Your task to perform on an android device: Add jbl charge 4 to the cart on costco.com, then select checkout. Image 0: 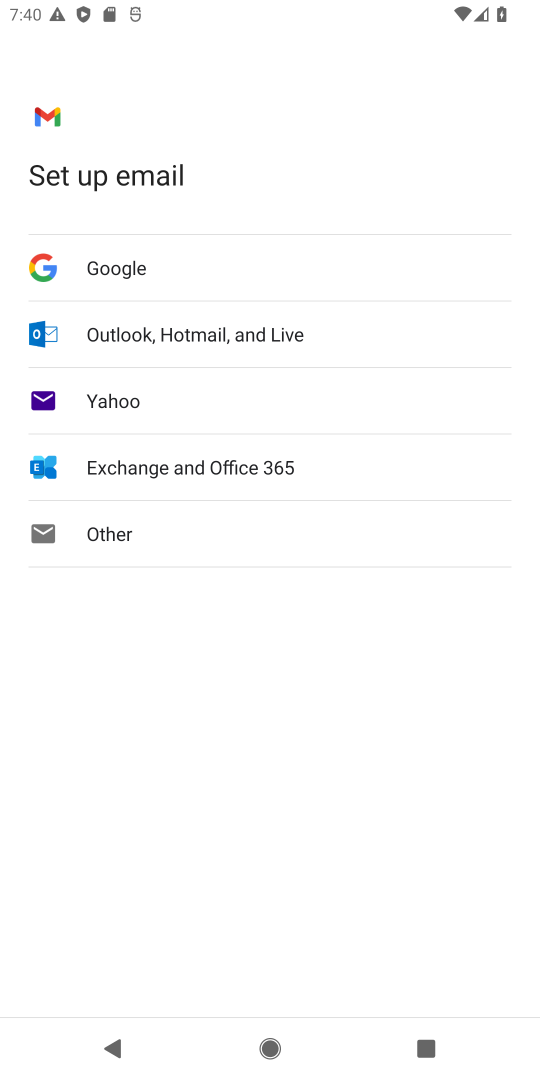
Step 0: press home button
Your task to perform on an android device: Add jbl charge 4 to the cart on costco.com, then select checkout. Image 1: 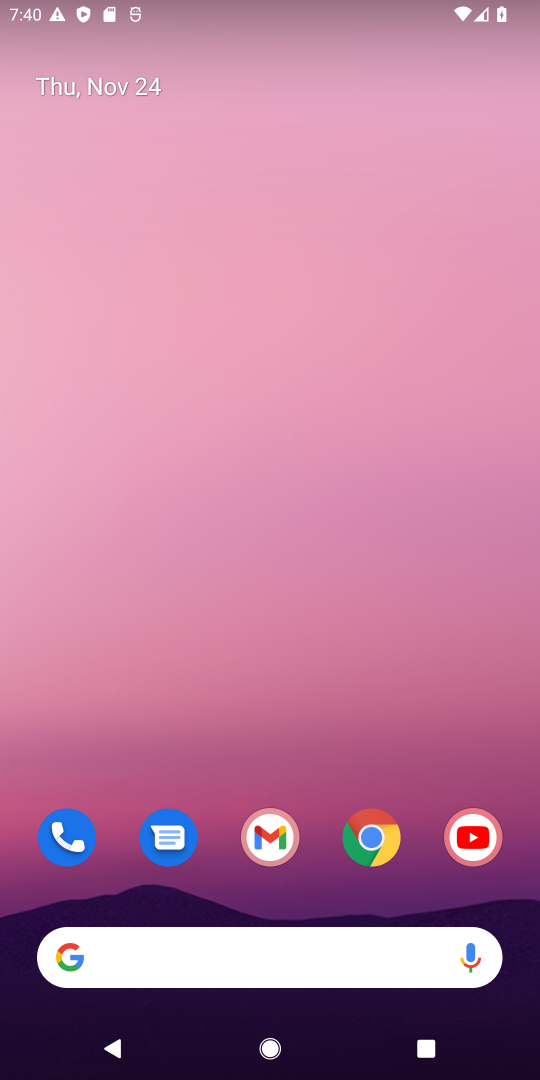
Step 1: click (364, 827)
Your task to perform on an android device: Add jbl charge 4 to the cart on costco.com, then select checkout. Image 2: 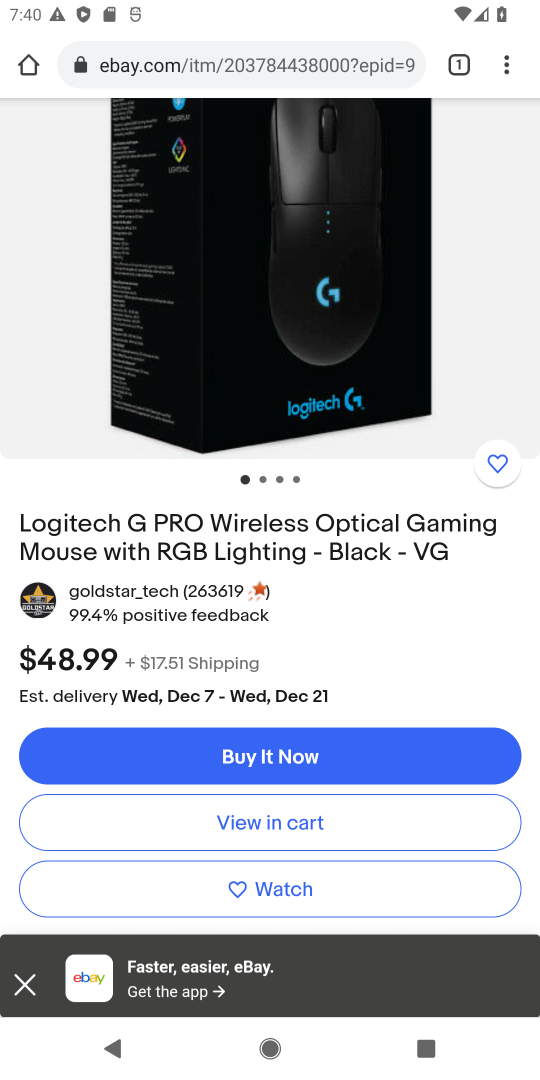
Step 2: click (252, 69)
Your task to perform on an android device: Add jbl charge 4 to the cart on costco.com, then select checkout. Image 3: 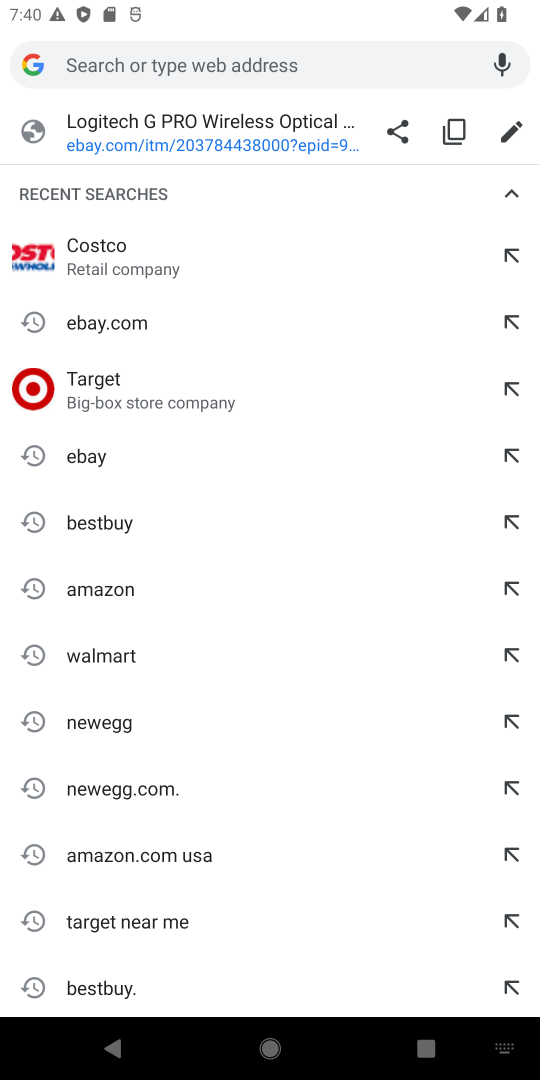
Step 3: type "costco.com"
Your task to perform on an android device: Add jbl charge 4 to the cart on costco.com, then select checkout. Image 4: 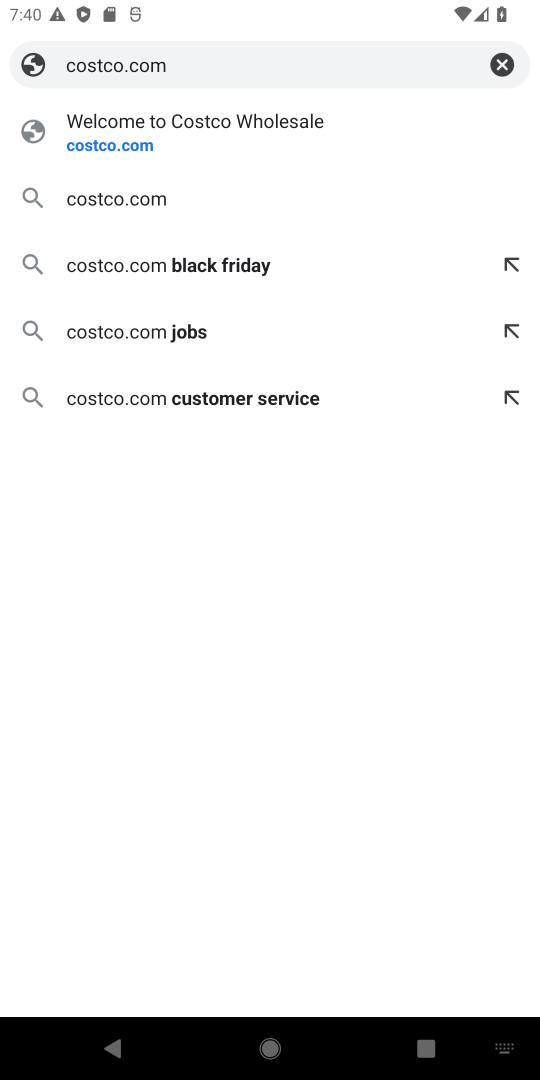
Step 4: click (221, 67)
Your task to perform on an android device: Add jbl charge 4 to the cart on costco.com, then select checkout. Image 5: 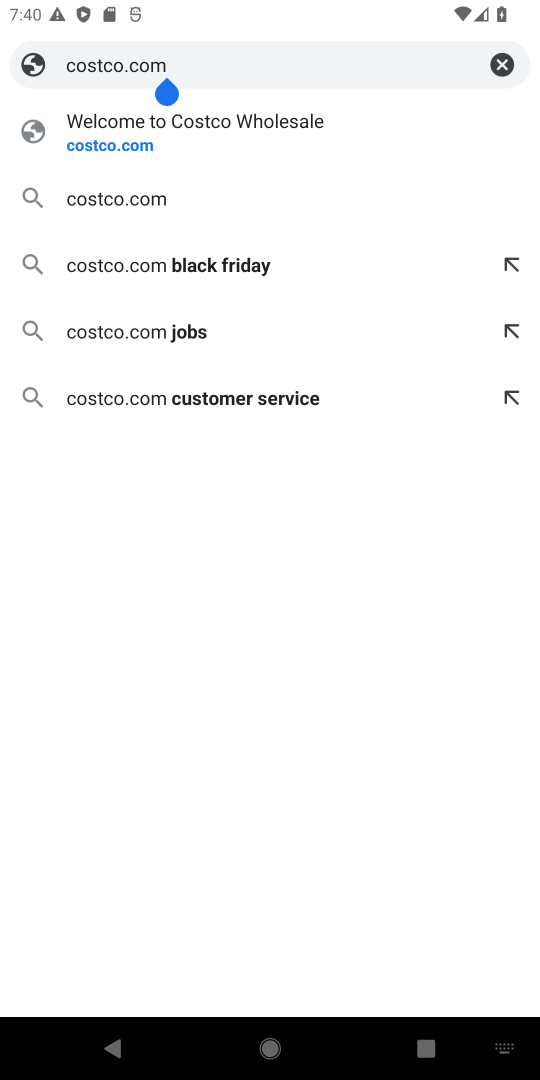
Step 5: click (134, 205)
Your task to perform on an android device: Add jbl charge 4 to the cart on costco.com, then select checkout. Image 6: 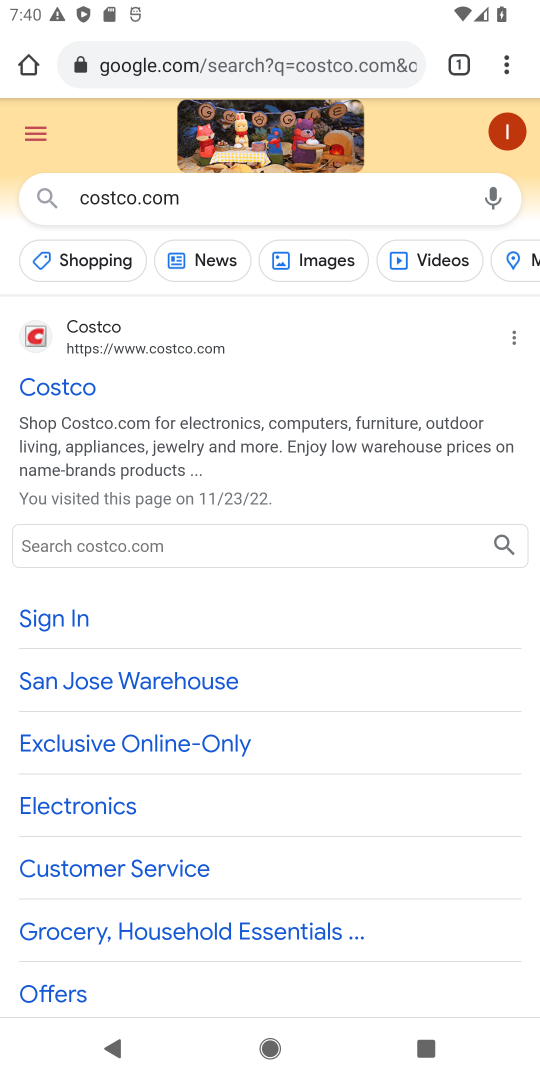
Step 6: click (58, 394)
Your task to perform on an android device: Add jbl charge 4 to the cart on costco.com, then select checkout. Image 7: 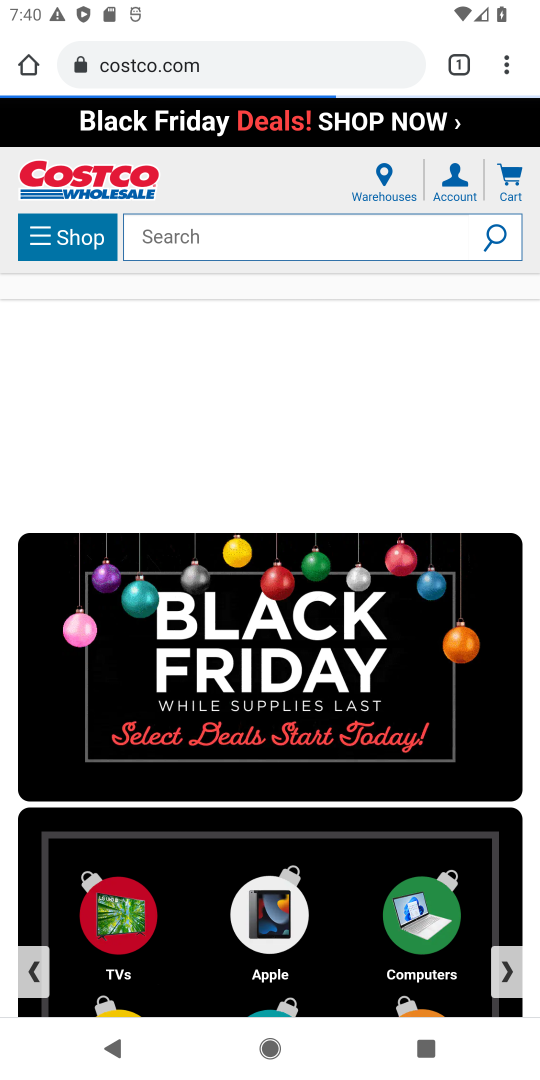
Step 7: click (310, 231)
Your task to perform on an android device: Add jbl charge 4 to the cart on costco.com, then select checkout. Image 8: 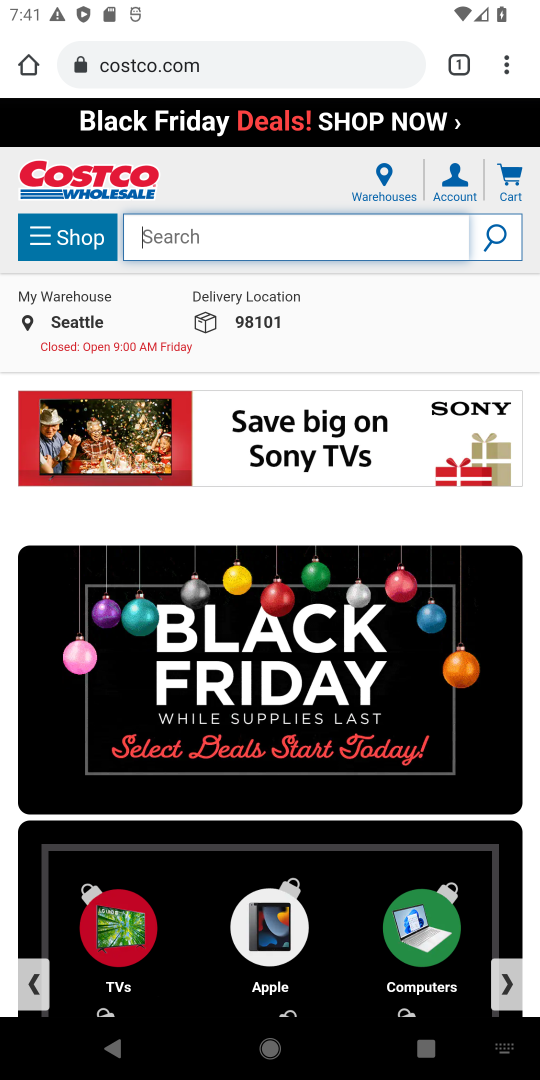
Step 8: type "jbl charge 4"
Your task to perform on an android device: Add jbl charge 4 to the cart on costco.com, then select checkout. Image 9: 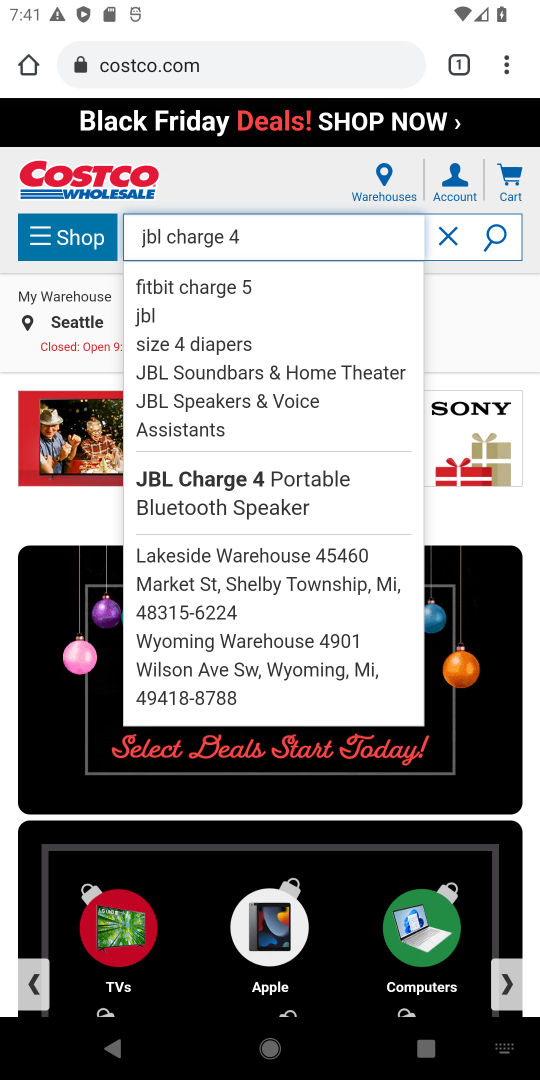
Step 9: click (490, 245)
Your task to perform on an android device: Add jbl charge 4 to the cart on costco.com, then select checkout. Image 10: 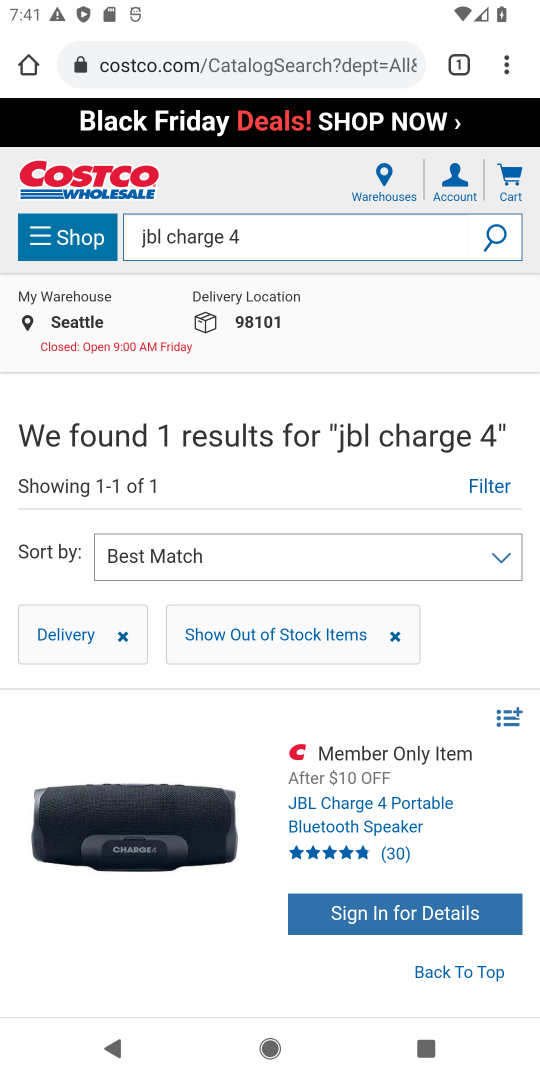
Step 10: drag from (280, 821) to (277, 616)
Your task to perform on an android device: Add jbl charge 4 to the cart on costco.com, then select checkout. Image 11: 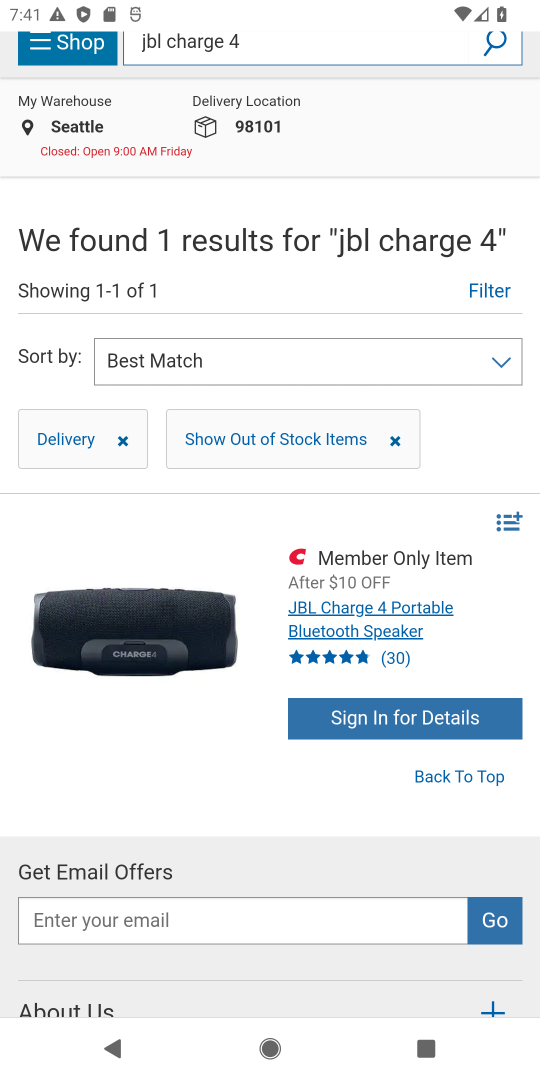
Step 11: click (213, 627)
Your task to perform on an android device: Add jbl charge 4 to the cart on costco.com, then select checkout. Image 12: 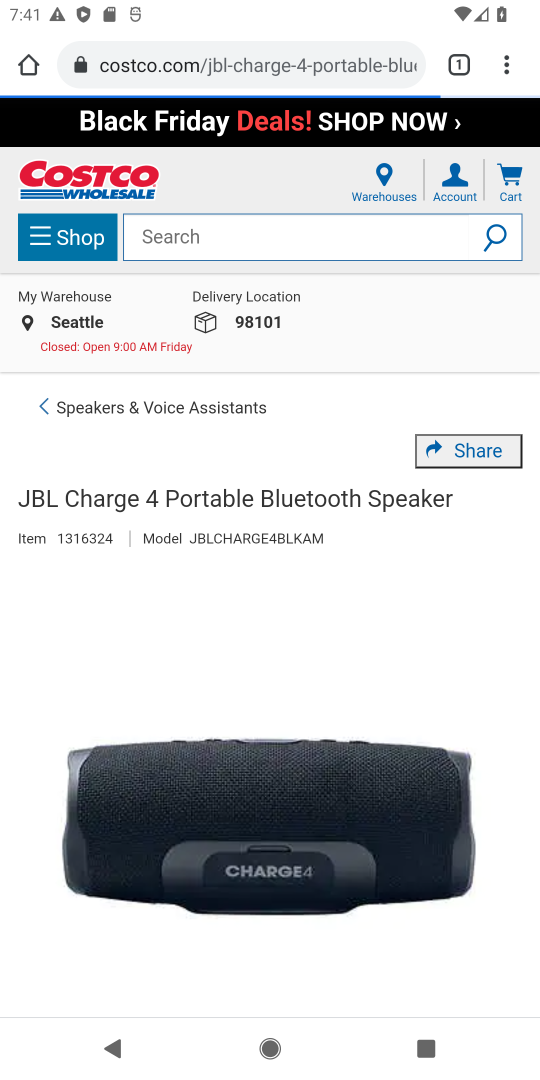
Step 12: drag from (304, 769) to (335, 445)
Your task to perform on an android device: Add jbl charge 4 to the cart on costco.com, then select checkout. Image 13: 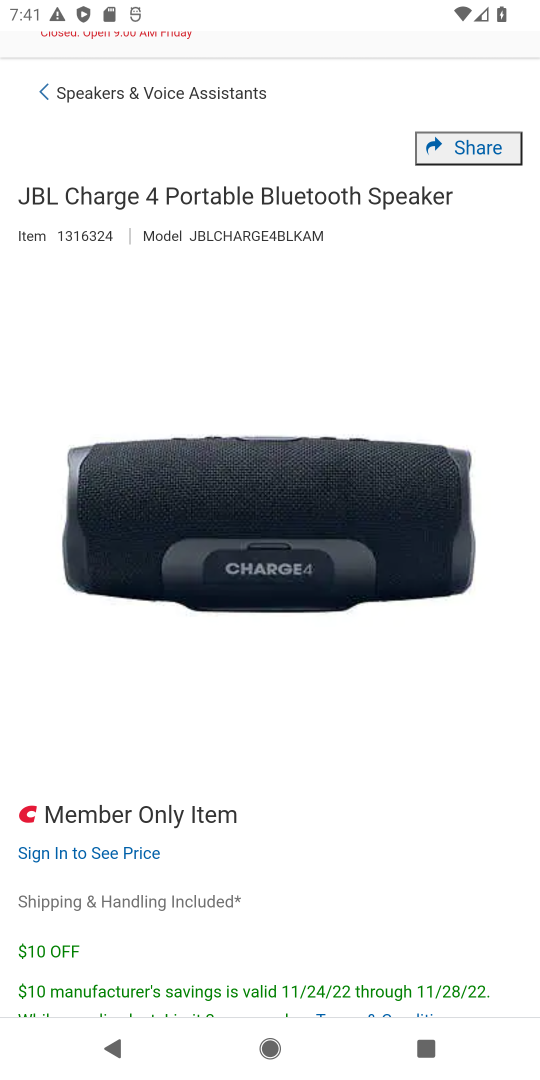
Step 13: drag from (312, 880) to (304, 425)
Your task to perform on an android device: Add jbl charge 4 to the cart on costco.com, then select checkout. Image 14: 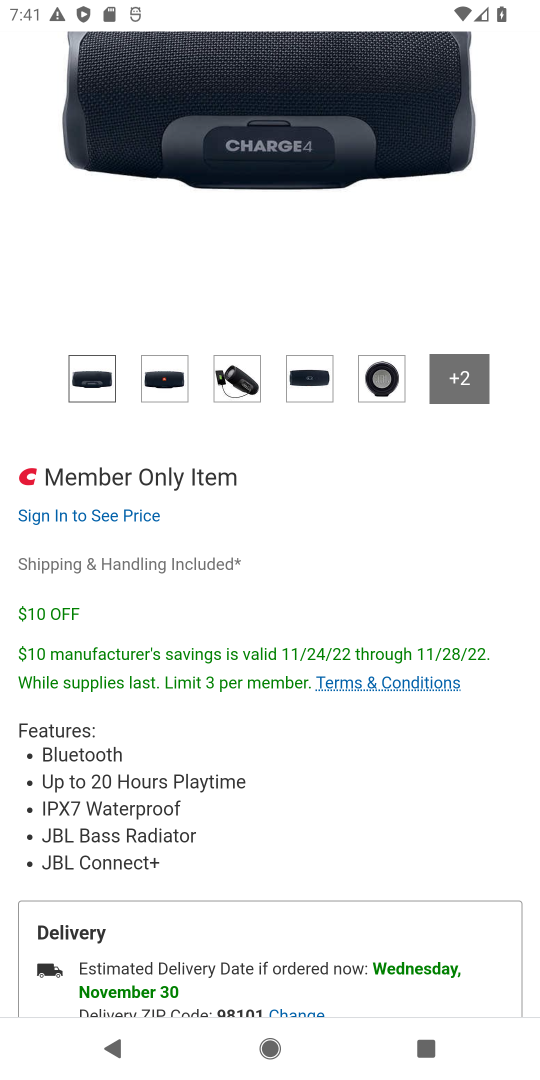
Step 14: drag from (216, 903) to (239, 212)
Your task to perform on an android device: Add jbl charge 4 to the cart on costco.com, then select checkout. Image 15: 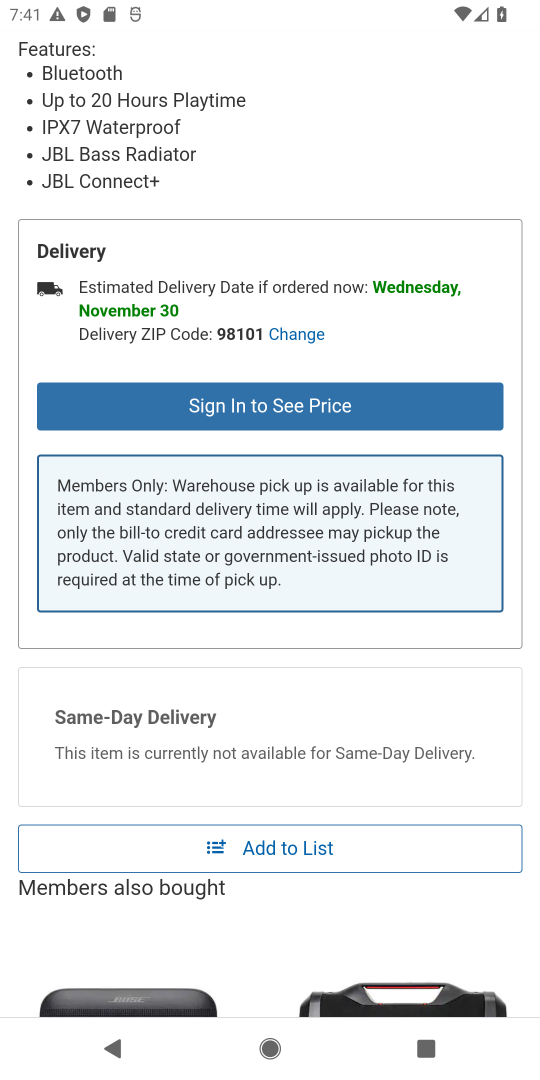
Step 15: drag from (316, 773) to (341, 479)
Your task to perform on an android device: Add jbl charge 4 to the cart on costco.com, then select checkout. Image 16: 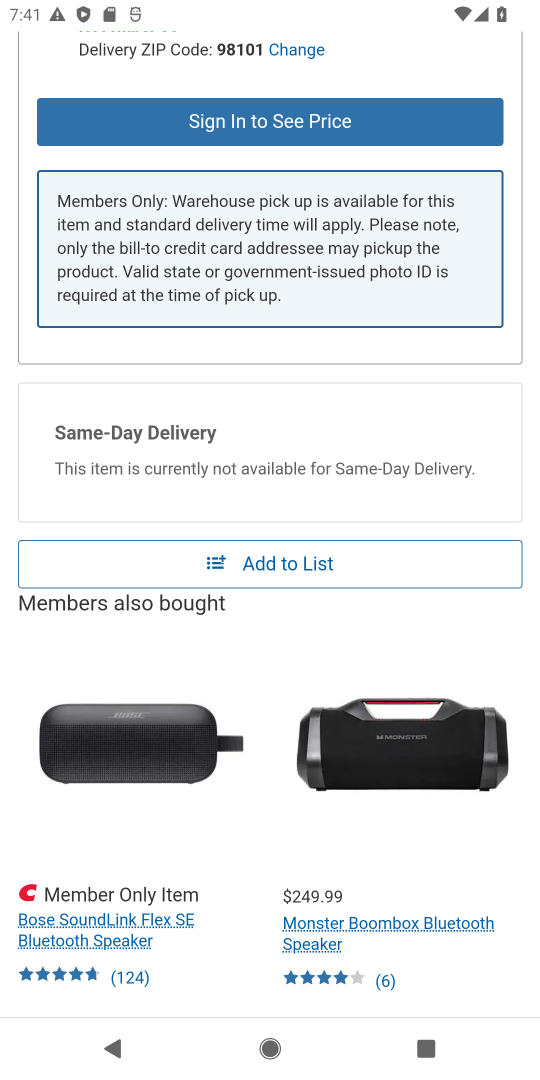
Step 16: click (299, 574)
Your task to perform on an android device: Add jbl charge 4 to the cart on costco.com, then select checkout. Image 17: 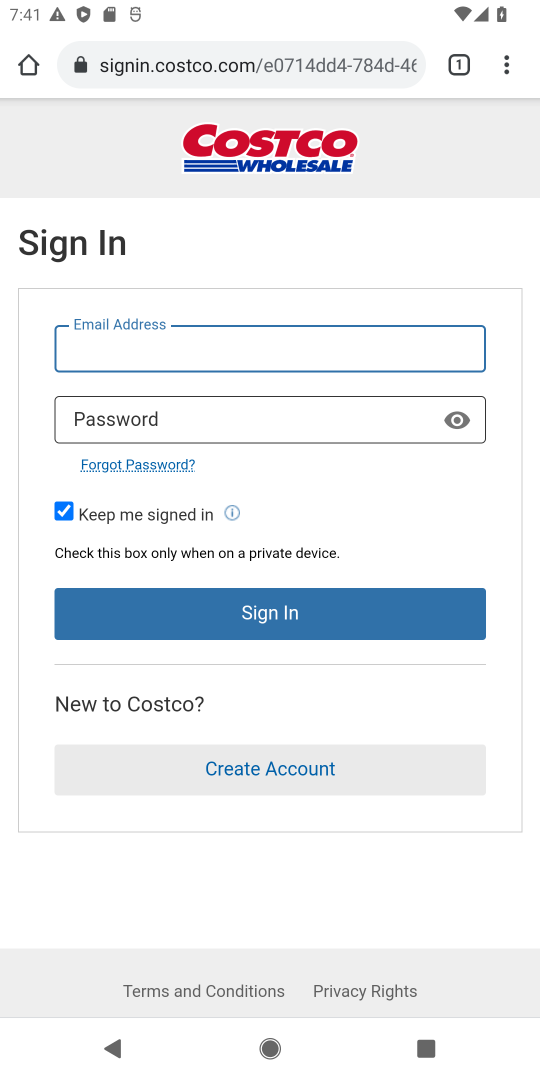
Step 17: task complete